Your task to perform on an android device: Go to network settings Image 0: 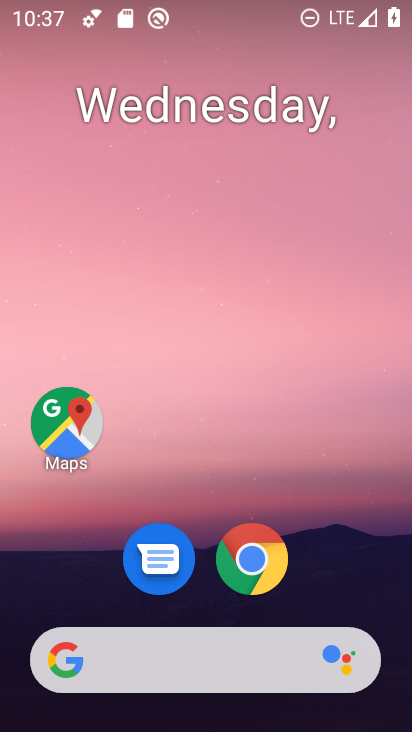
Step 0: drag from (368, 565) to (350, 142)
Your task to perform on an android device: Go to network settings Image 1: 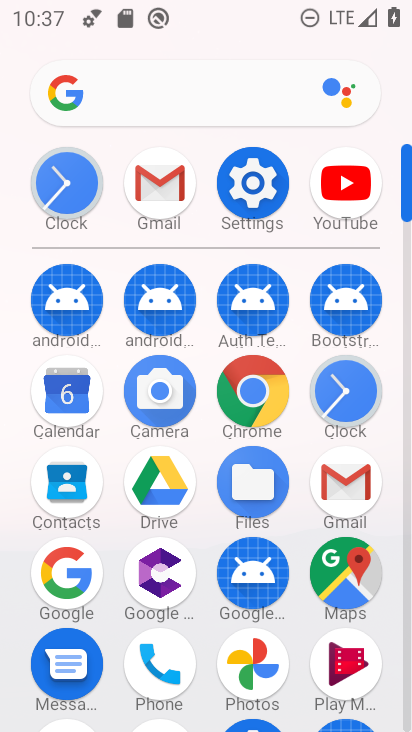
Step 1: click (267, 213)
Your task to perform on an android device: Go to network settings Image 2: 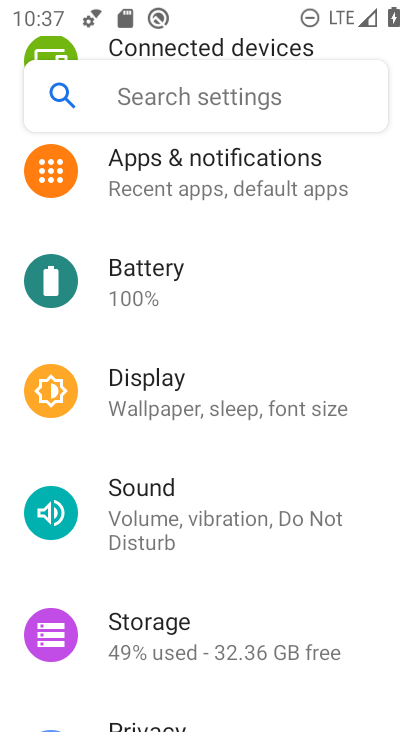
Step 2: drag from (369, 560) to (377, 474)
Your task to perform on an android device: Go to network settings Image 3: 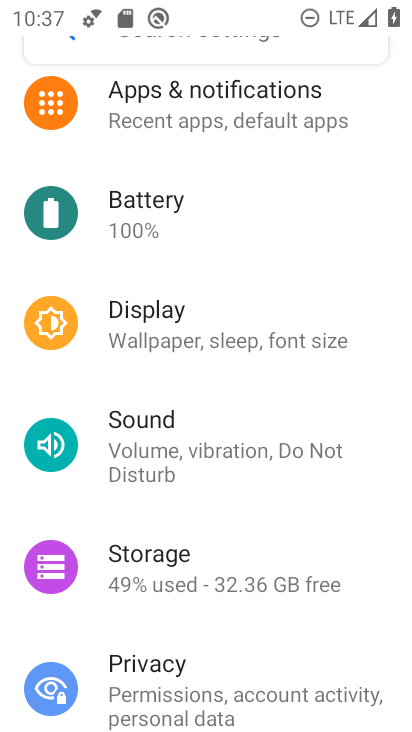
Step 3: drag from (387, 600) to (382, 496)
Your task to perform on an android device: Go to network settings Image 4: 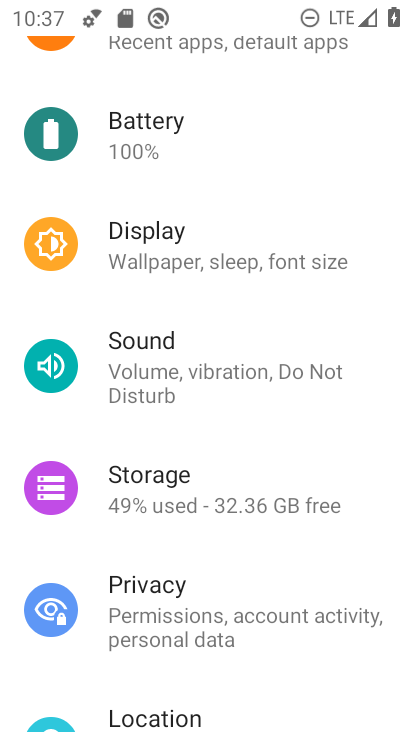
Step 4: drag from (355, 583) to (356, 444)
Your task to perform on an android device: Go to network settings Image 5: 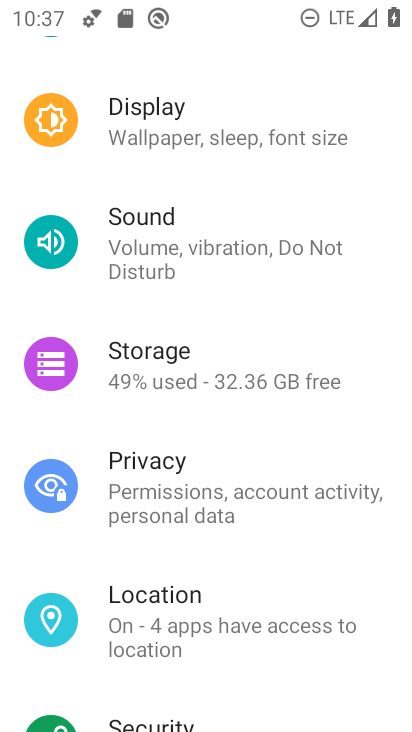
Step 5: drag from (352, 585) to (352, 472)
Your task to perform on an android device: Go to network settings Image 6: 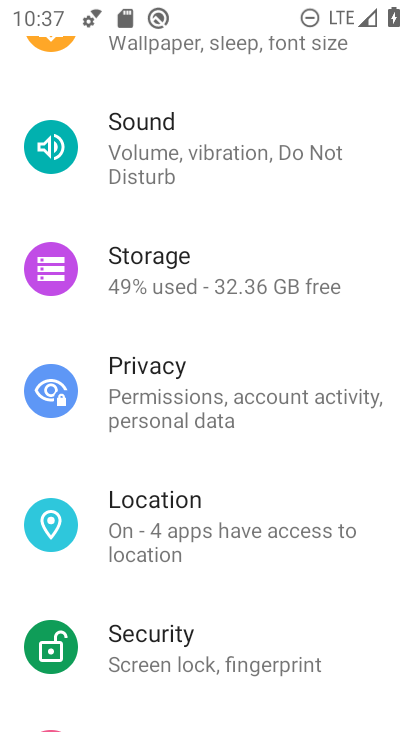
Step 6: drag from (372, 603) to (372, 465)
Your task to perform on an android device: Go to network settings Image 7: 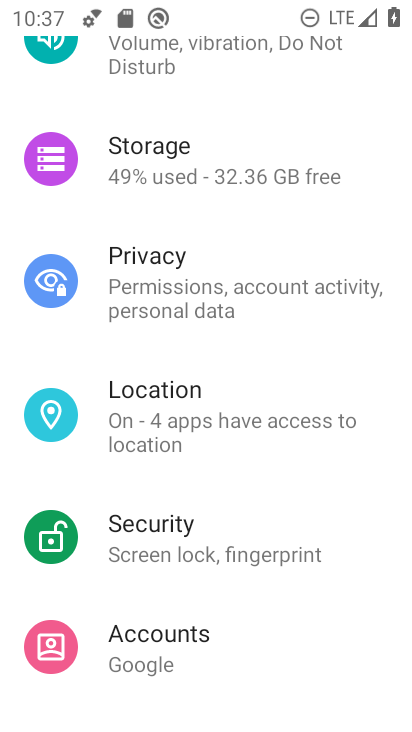
Step 7: drag from (375, 585) to (362, 465)
Your task to perform on an android device: Go to network settings Image 8: 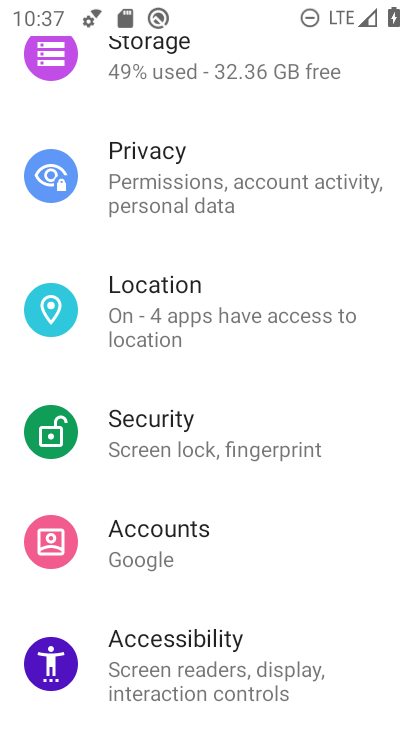
Step 8: drag from (357, 609) to (354, 474)
Your task to perform on an android device: Go to network settings Image 9: 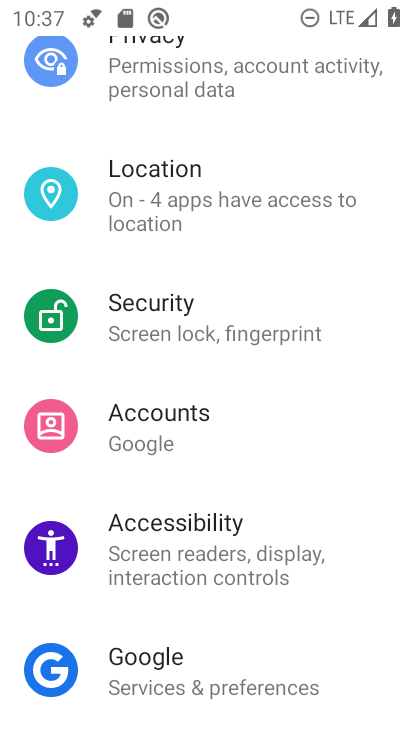
Step 9: drag from (343, 439) to (355, 527)
Your task to perform on an android device: Go to network settings Image 10: 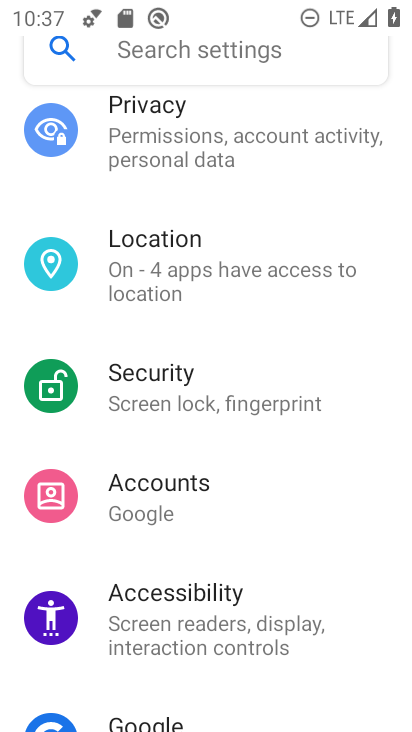
Step 10: drag from (365, 343) to (374, 475)
Your task to perform on an android device: Go to network settings Image 11: 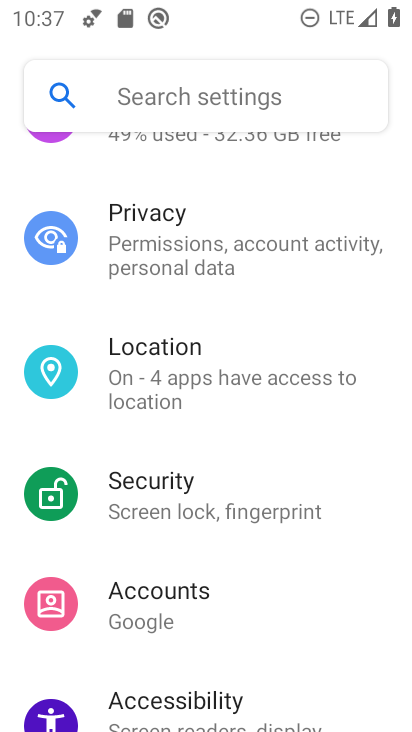
Step 11: drag from (354, 322) to (350, 494)
Your task to perform on an android device: Go to network settings Image 12: 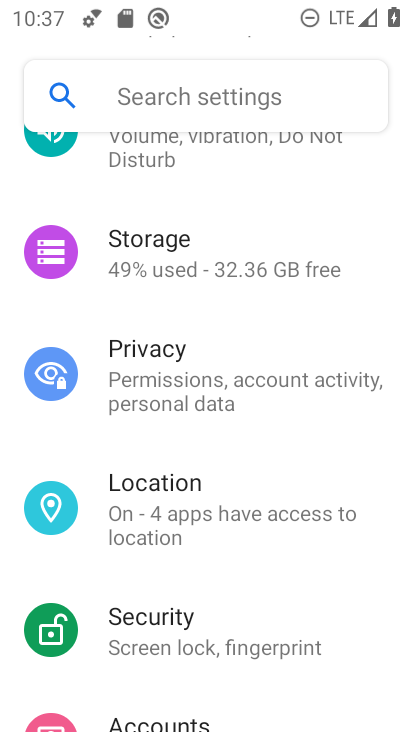
Step 12: drag from (370, 272) to (368, 364)
Your task to perform on an android device: Go to network settings Image 13: 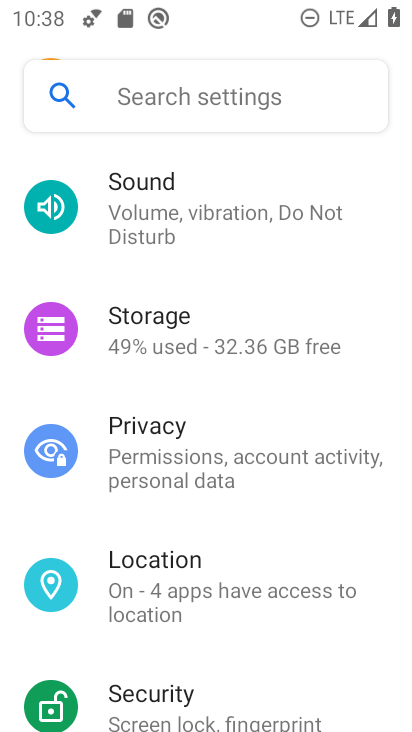
Step 13: drag from (349, 256) to (349, 358)
Your task to perform on an android device: Go to network settings Image 14: 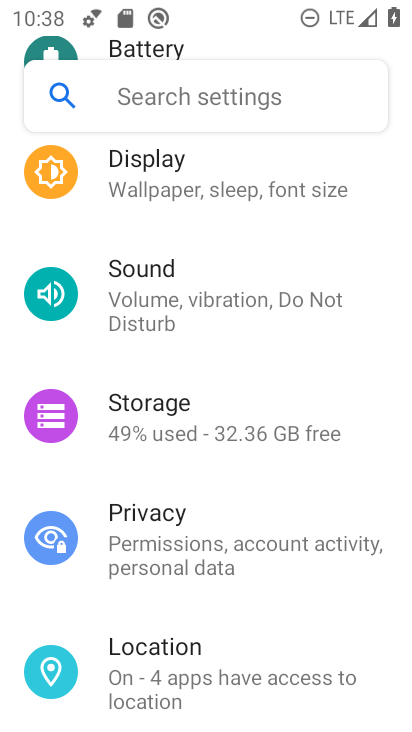
Step 14: drag from (354, 228) to (359, 352)
Your task to perform on an android device: Go to network settings Image 15: 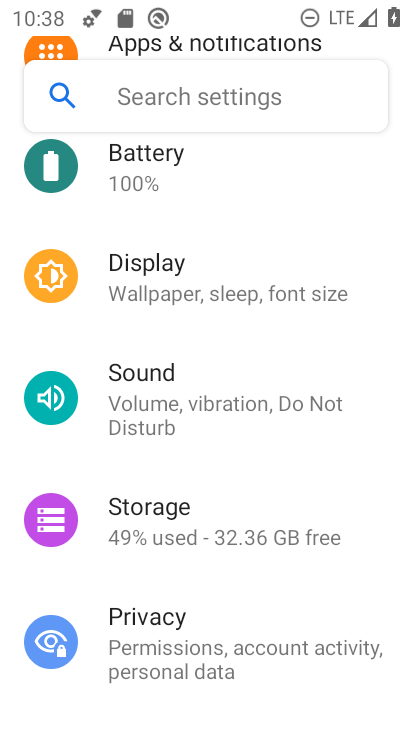
Step 15: drag from (365, 205) to (362, 365)
Your task to perform on an android device: Go to network settings Image 16: 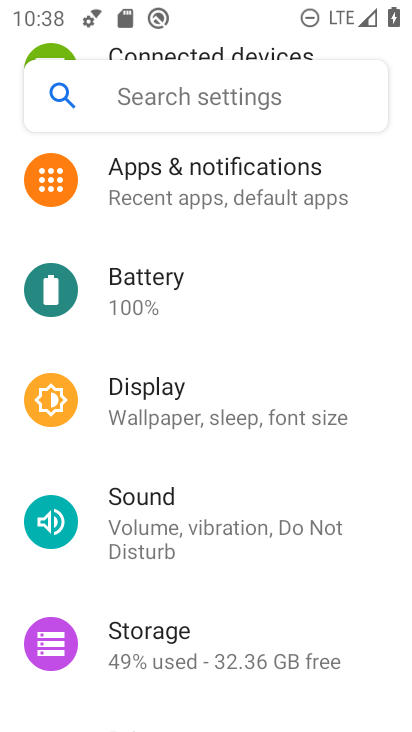
Step 16: drag from (355, 311) to (359, 406)
Your task to perform on an android device: Go to network settings Image 17: 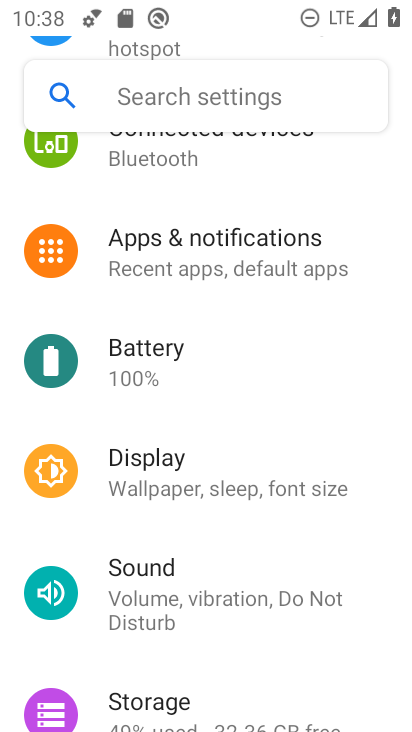
Step 17: drag from (355, 229) to (352, 416)
Your task to perform on an android device: Go to network settings Image 18: 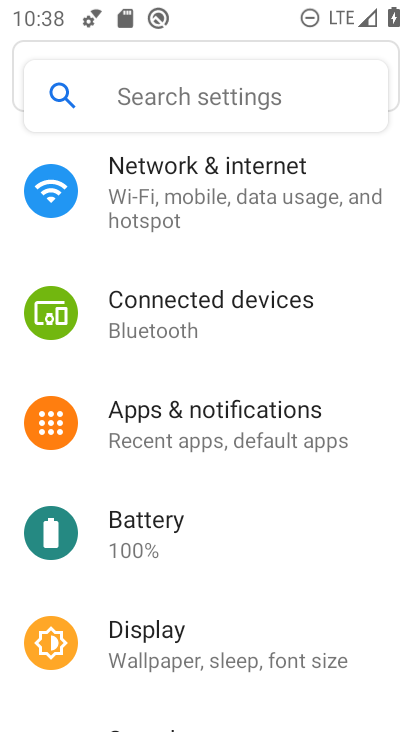
Step 18: drag from (356, 278) to (360, 408)
Your task to perform on an android device: Go to network settings Image 19: 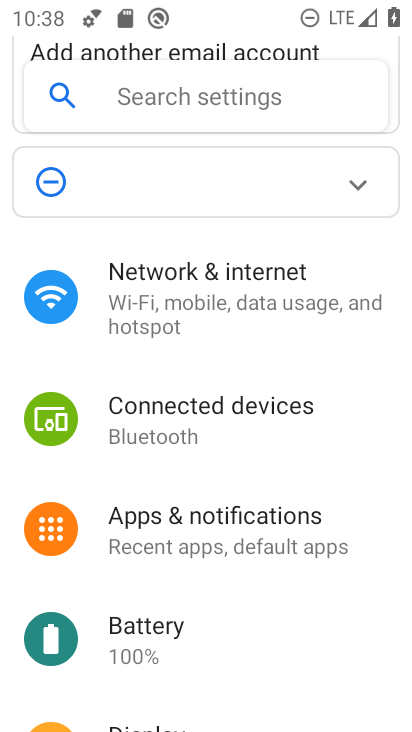
Step 19: click (299, 287)
Your task to perform on an android device: Go to network settings Image 20: 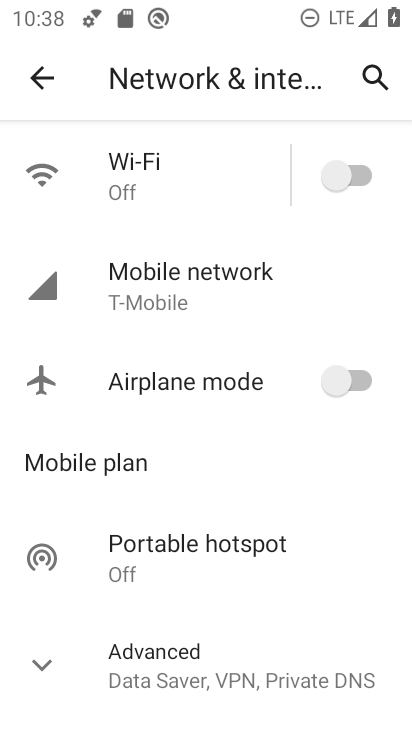
Step 20: task complete